Your task to perform on an android device: turn on javascript in the chrome app Image 0: 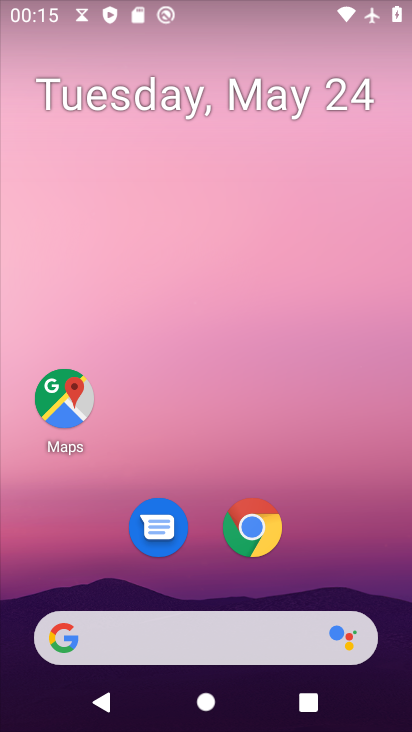
Step 0: press home button
Your task to perform on an android device: turn on javascript in the chrome app Image 1: 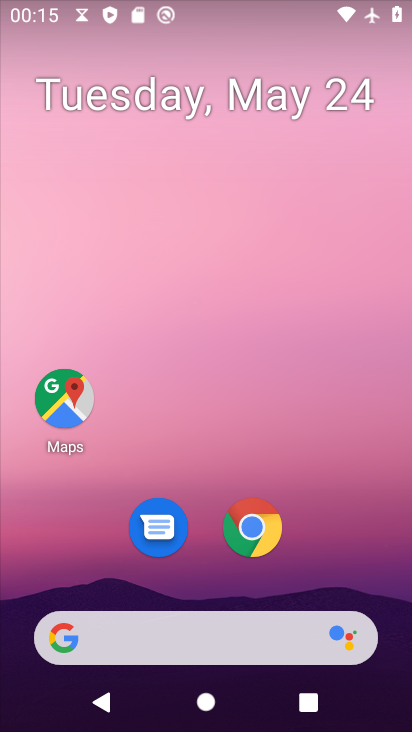
Step 1: click (266, 533)
Your task to perform on an android device: turn on javascript in the chrome app Image 2: 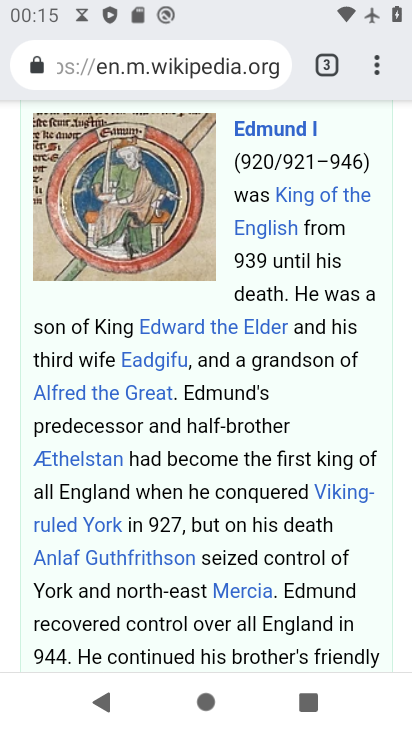
Step 2: drag from (379, 70) to (203, 589)
Your task to perform on an android device: turn on javascript in the chrome app Image 3: 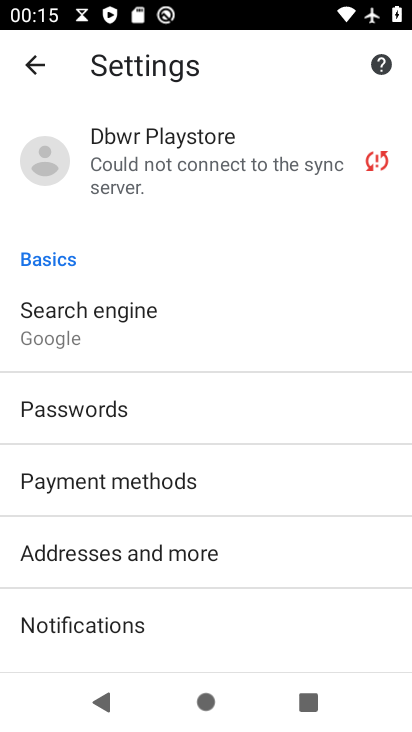
Step 3: drag from (192, 561) to (295, 246)
Your task to perform on an android device: turn on javascript in the chrome app Image 4: 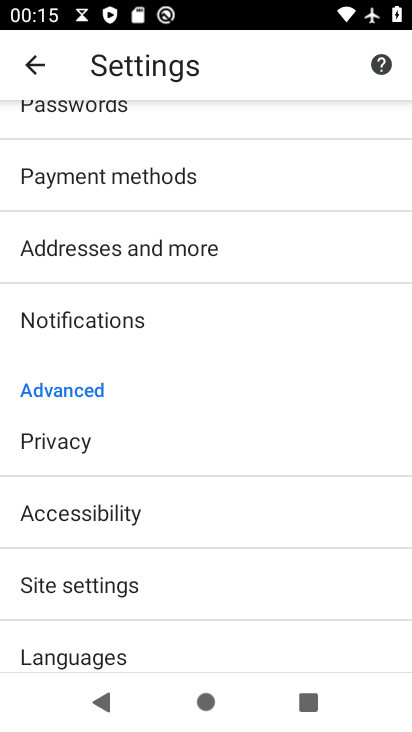
Step 4: click (130, 593)
Your task to perform on an android device: turn on javascript in the chrome app Image 5: 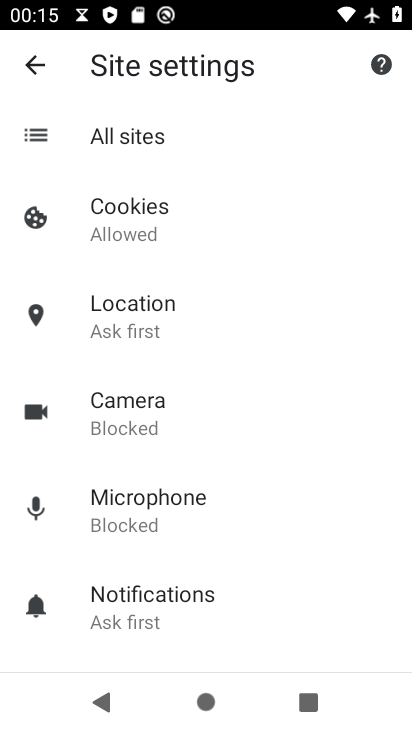
Step 5: drag from (255, 490) to (322, 222)
Your task to perform on an android device: turn on javascript in the chrome app Image 6: 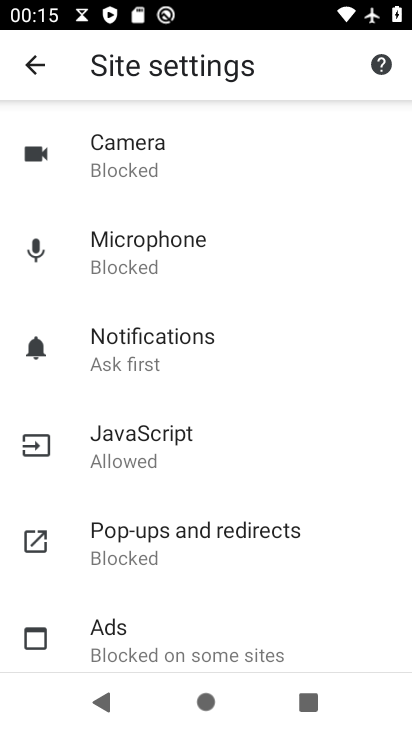
Step 6: click (125, 439)
Your task to perform on an android device: turn on javascript in the chrome app Image 7: 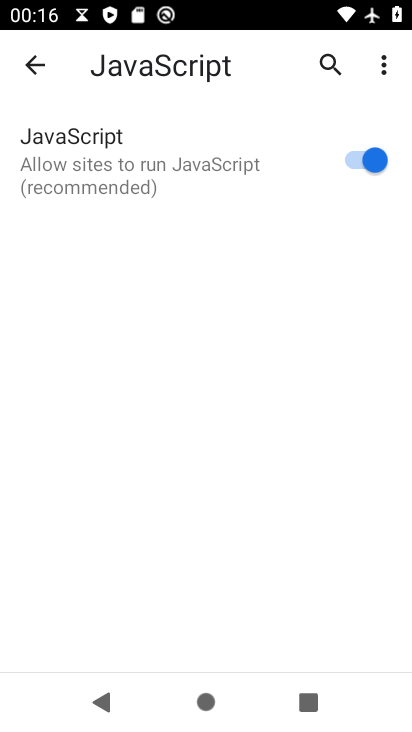
Step 7: task complete